Your task to perform on an android device: Go to network settings Image 0: 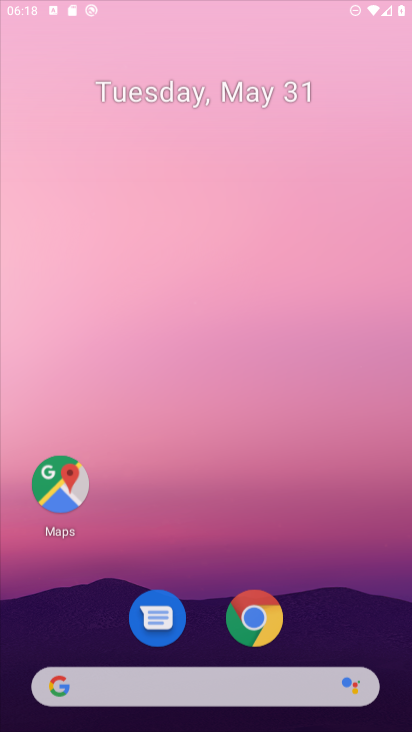
Step 0: drag from (285, 691) to (229, 57)
Your task to perform on an android device: Go to network settings Image 1: 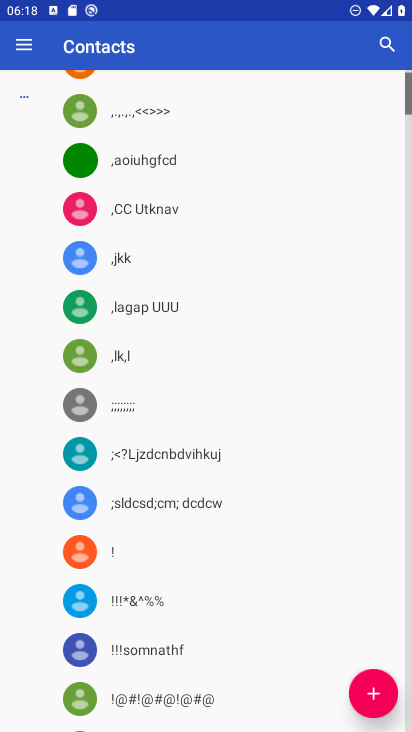
Step 1: press home button
Your task to perform on an android device: Go to network settings Image 2: 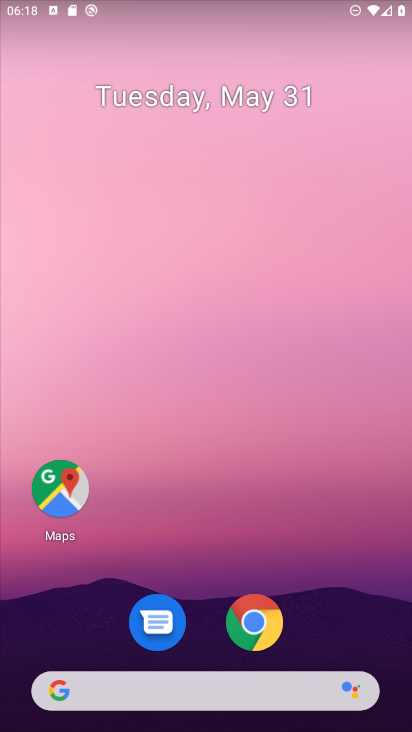
Step 2: drag from (309, 685) to (259, 69)
Your task to perform on an android device: Go to network settings Image 3: 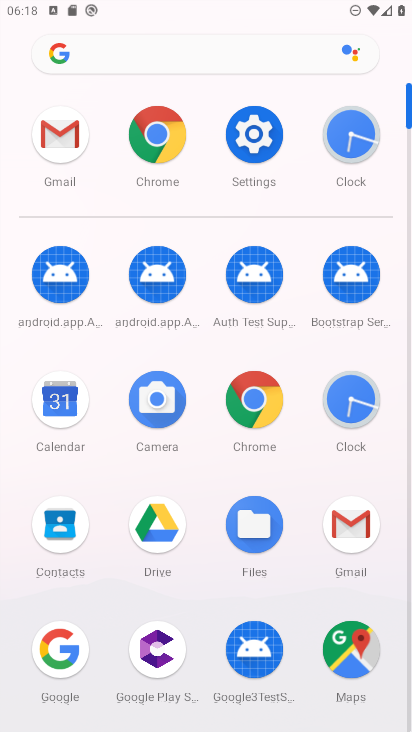
Step 3: click (257, 156)
Your task to perform on an android device: Go to network settings Image 4: 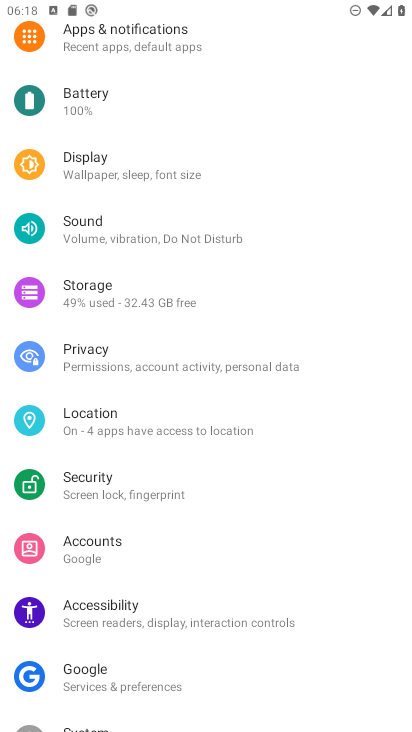
Step 4: drag from (263, 126) to (264, 650)
Your task to perform on an android device: Go to network settings Image 5: 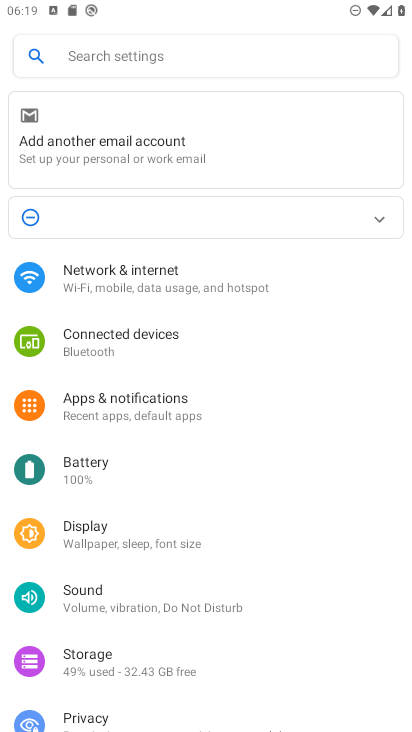
Step 5: drag from (213, 155) to (212, 720)
Your task to perform on an android device: Go to network settings Image 6: 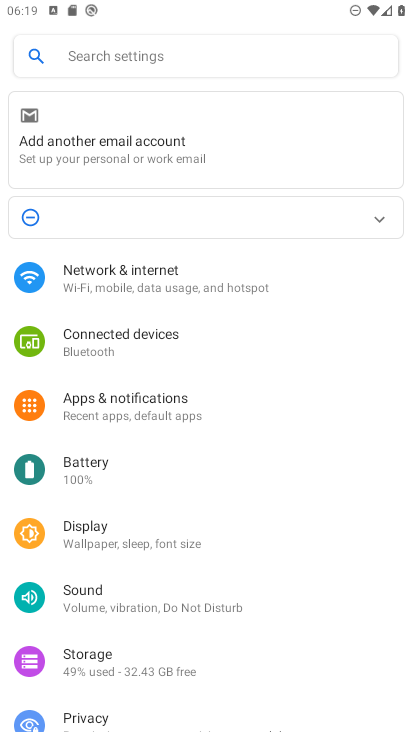
Step 6: click (199, 280)
Your task to perform on an android device: Go to network settings Image 7: 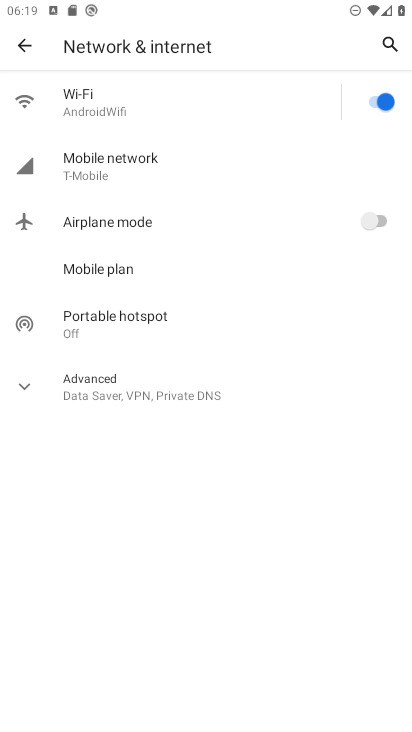
Step 7: task complete